Your task to perform on an android device: turn off data saver in the chrome app Image 0: 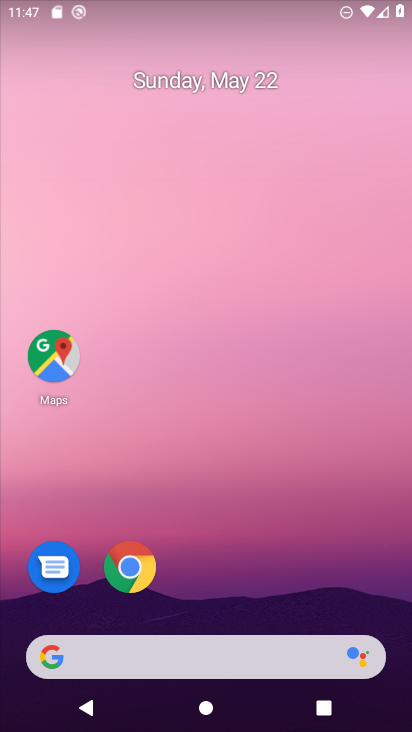
Step 0: click (131, 588)
Your task to perform on an android device: turn off data saver in the chrome app Image 1: 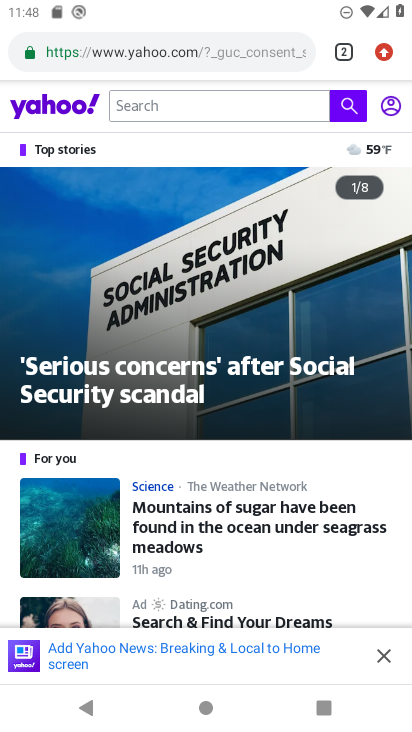
Step 1: click (386, 48)
Your task to perform on an android device: turn off data saver in the chrome app Image 2: 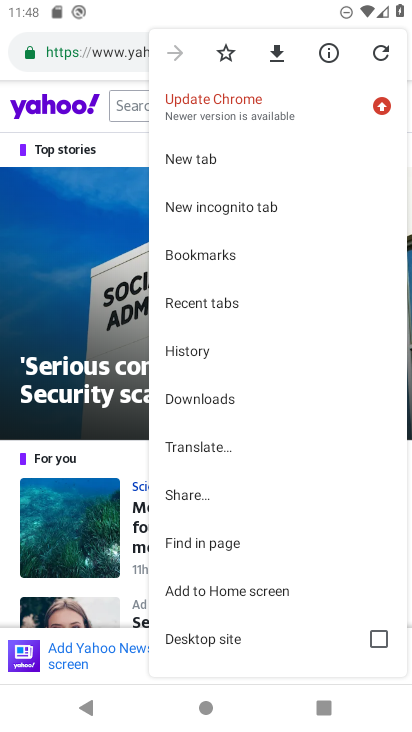
Step 2: drag from (186, 623) to (190, 15)
Your task to perform on an android device: turn off data saver in the chrome app Image 3: 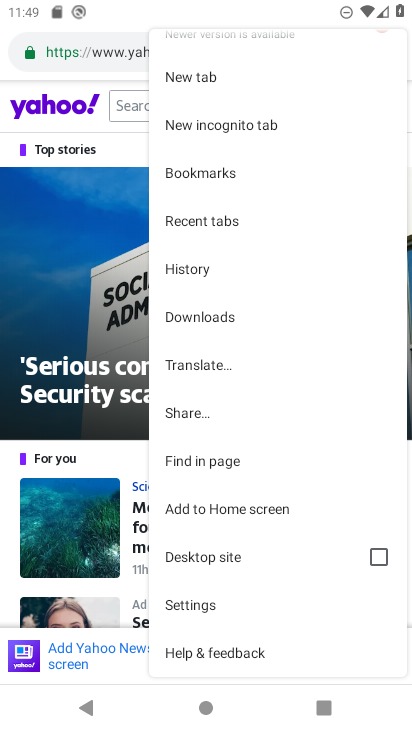
Step 3: click (195, 604)
Your task to perform on an android device: turn off data saver in the chrome app Image 4: 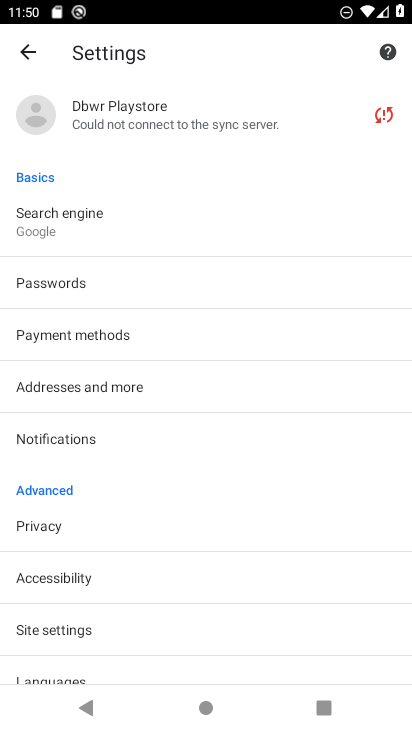
Step 4: click (140, 637)
Your task to perform on an android device: turn off data saver in the chrome app Image 5: 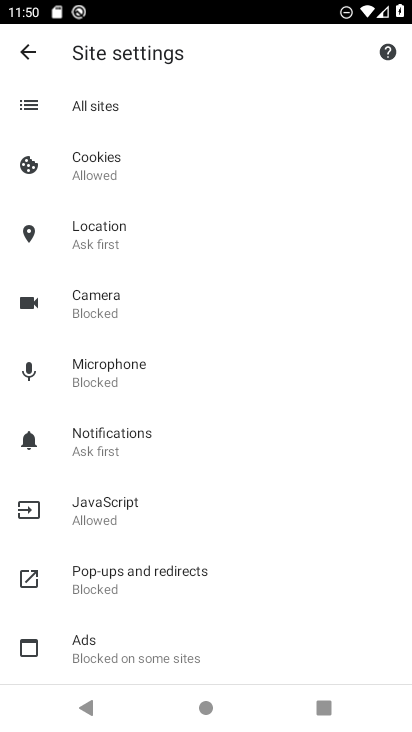
Step 5: press back button
Your task to perform on an android device: turn off data saver in the chrome app Image 6: 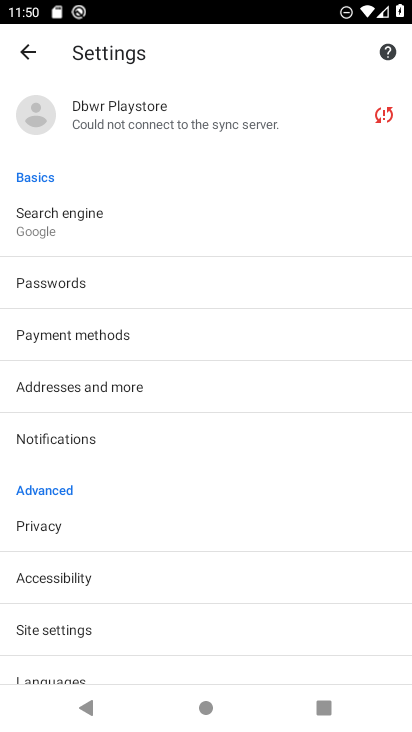
Step 6: drag from (79, 658) to (79, 65)
Your task to perform on an android device: turn off data saver in the chrome app Image 7: 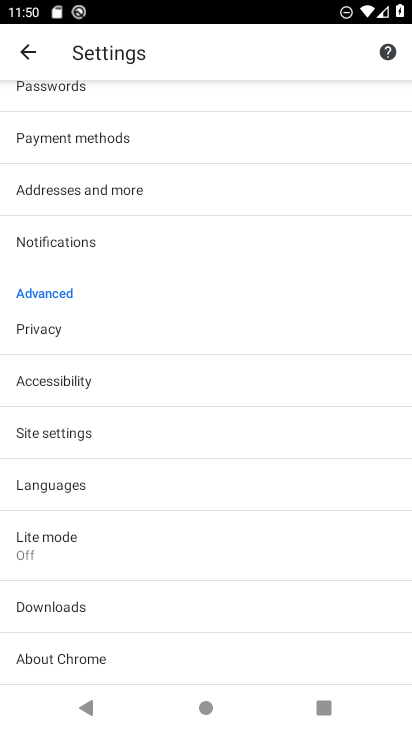
Step 7: click (33, 552)
Your task to perform on an android device: turn off data saver in the chrome app Image 8: 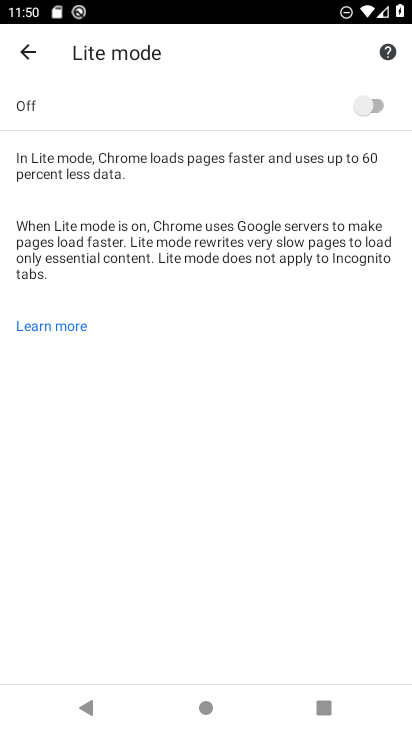
Step 8: task complete